Your task to perform on an android device: find which apps use the phone's location Image 0: 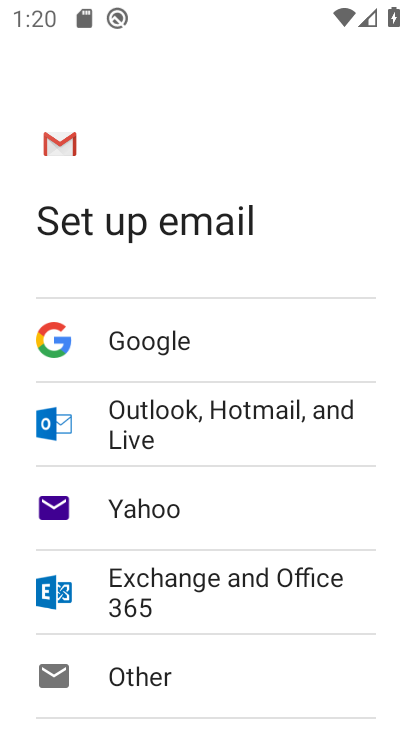
Step 0: press home button
Your task to perform on an android device: find which apps use the phone's location Image 1: 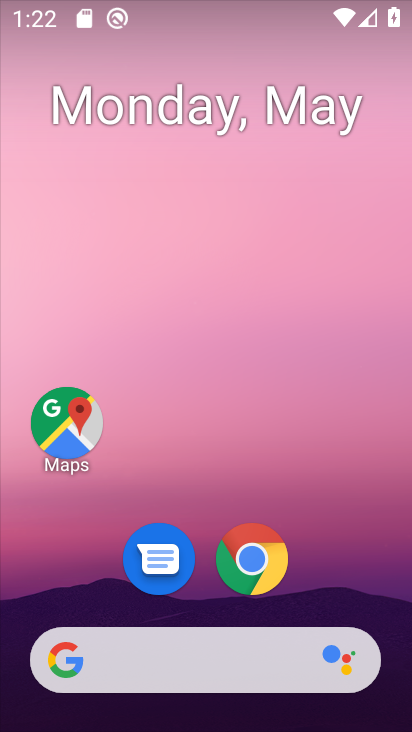
Step 1: drag from (325, 563) to (328, 136)
Your task to perform on an android device: find which apps use the phone's location Image 2: 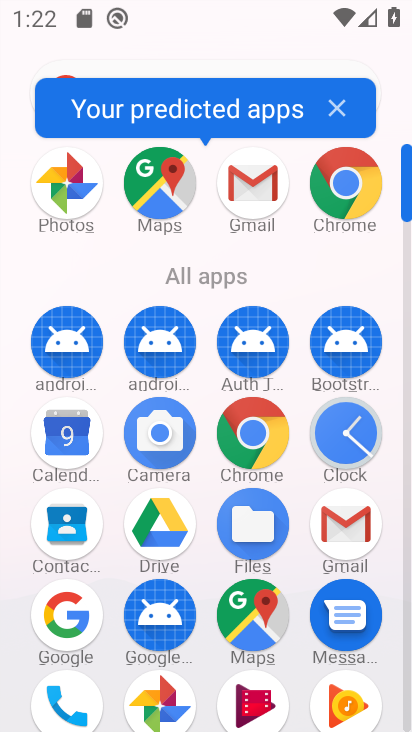
Step 2: drag from (216, 565) to (262, 223)
Your task to perform on an android device: find which apps use the phone's location Image 3: 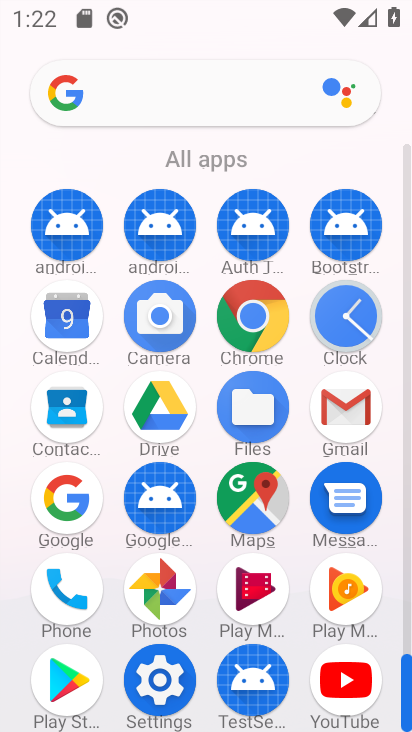
Step 3: click (154, 662)
Your task to perform on an android device: find which apps use the phone's location Image 4: 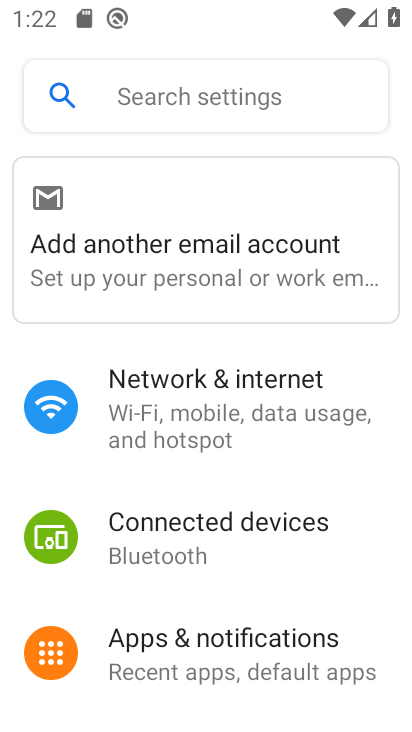
Step 4: drag from (249, 601) to (255, 255)
Your task to perform on an android device: find which apps use the phone's location Image 5: 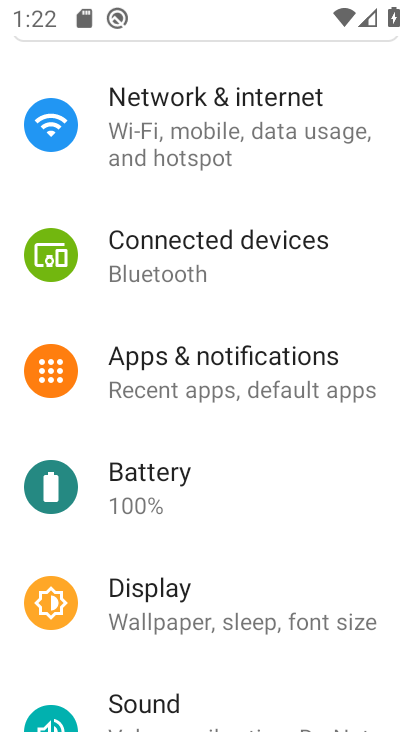
Step 5: drag from (224, 611) to (220, 306)
Your task to perform on an android device: find which apps use the phone's location Image 6: 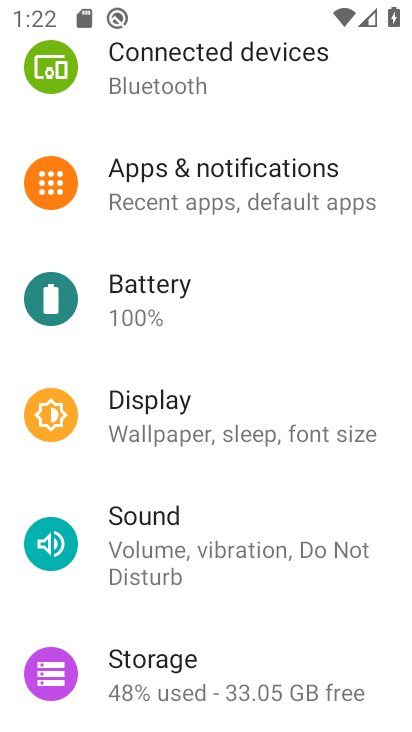
Step 6: drag from (261, 615) to (239, 217)
Your task to perform on an android device: find which apps use the phone's location Image 7: 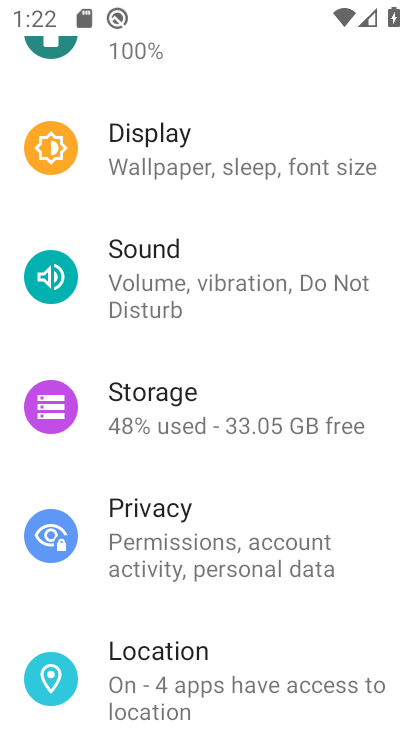
Step 7: click (212, 648)
Your task to perform on an android device: find which apps use the phone's location Image 8: 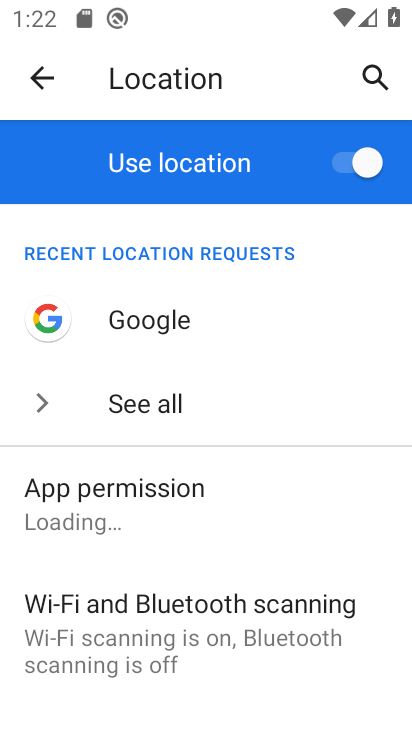
Step 8: task complete